Your task to perform on an android device: open a bookmark in the chrome app Image 0: 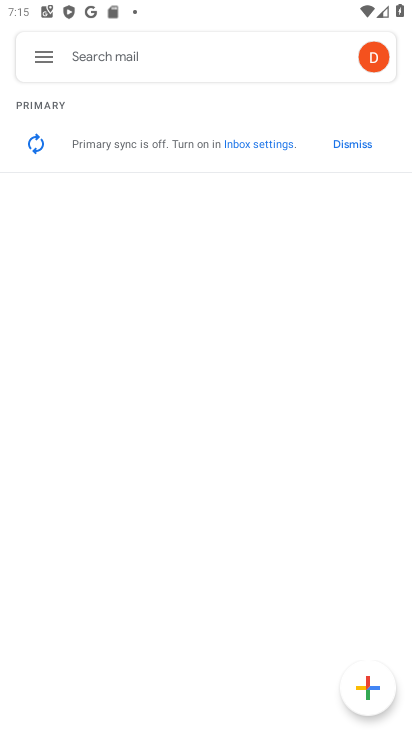
Step 0: press home button
Your task to perform on an android device: open a bookmark in the chrome app Image 1: 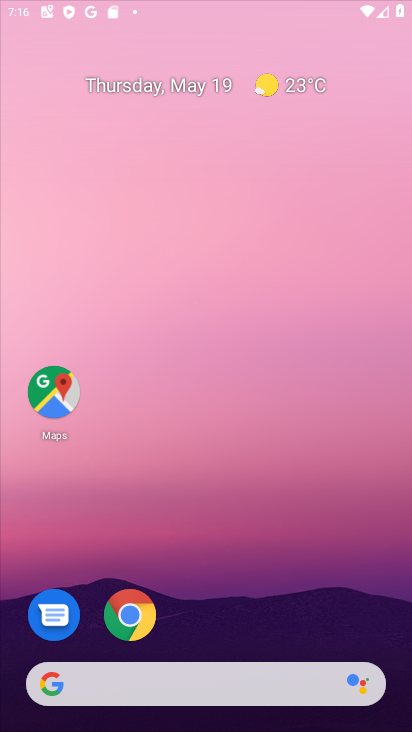
Step 1: drag from (321, 633) to (287, 22)
Your task to perform on an android device: open a bookmark in the chrome app Image 2: 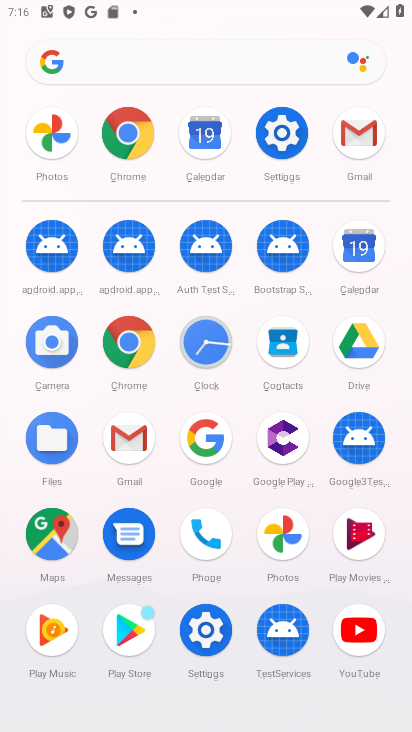
Step 2: click (120, 356)
Your task to perform on an android device: open a bookmark in the chrome app Image 3: 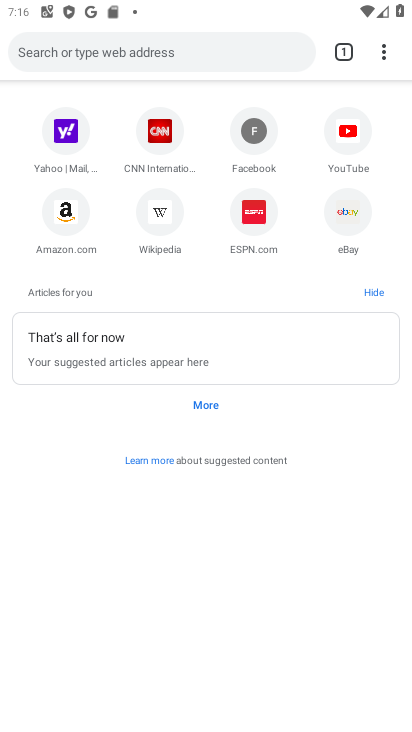
Step 3: click (389, 54)
Your task to perform on an android device: open a bookmark in the chrome app Image 4: 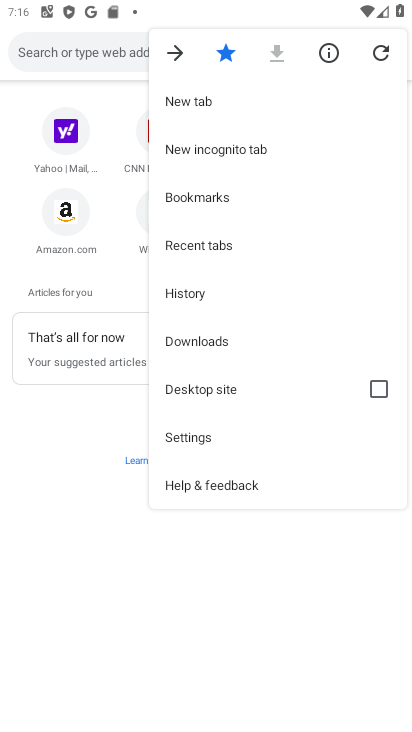
Step 4: click (222, 191)
Your task to perform on an android device: open a bookmark in the chrome app Image 5: 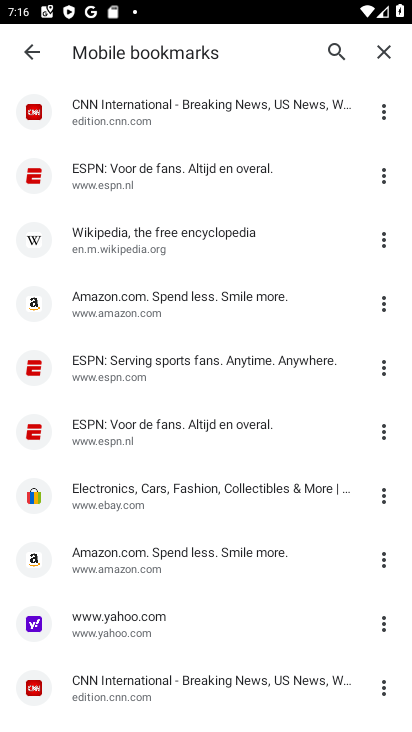
Step 5: task complete